Your task to perform on an android device: Open Chrome and go to the settings page Image 0: 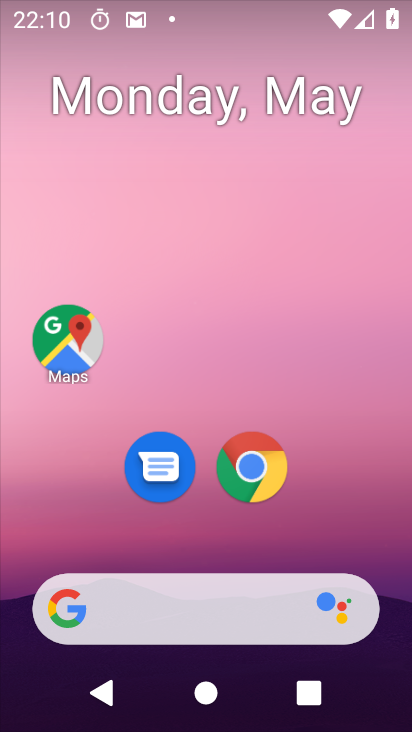
Step 0: press home button
Your task to perform on an android device: Open Chrome and go to the settings page Image 1: 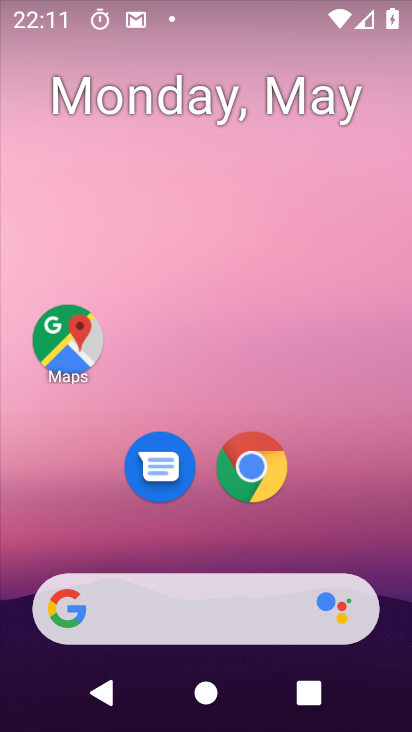
Step 1: drag from (277, 639) to (243, 365)
Your task to perform on an android device: Open Chrome and go to the settings page Image 2: 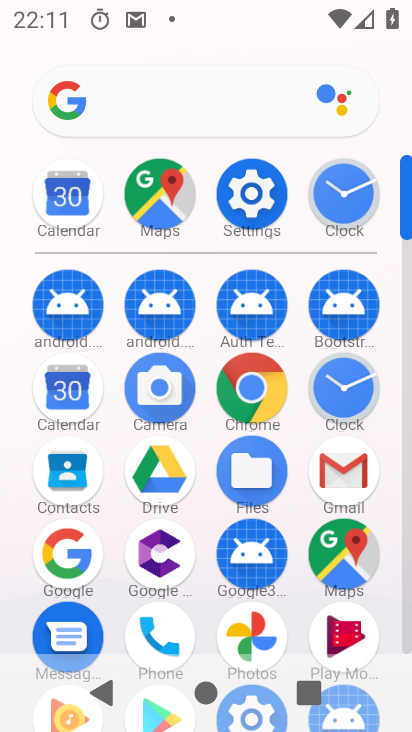
Step 2: click (239, 375)
Your task to perform on an android device: Open Chrome and go to the settings page Image 3: 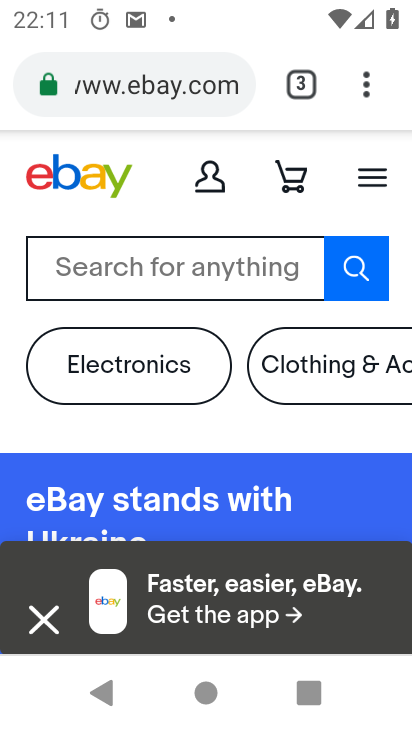
Step 3: click (368, 99)
Your task to perform on an android device: Open Chrome and go to the settings page Image 4: 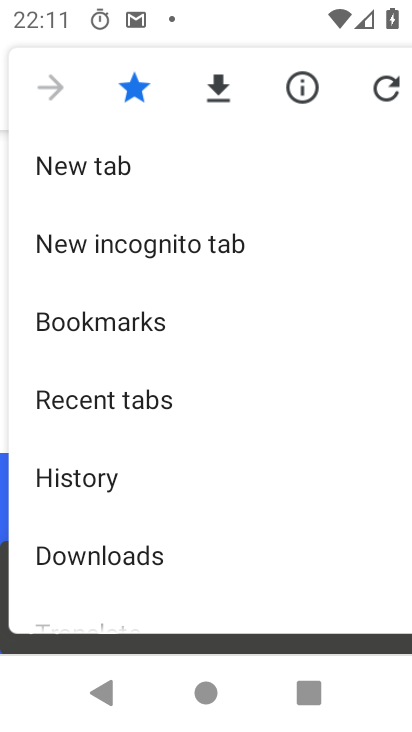
Step 4: drag from (161, 515) to (212, 283)
Your task to perform on an android device: Open Chrome and go to the settings page Image 5: 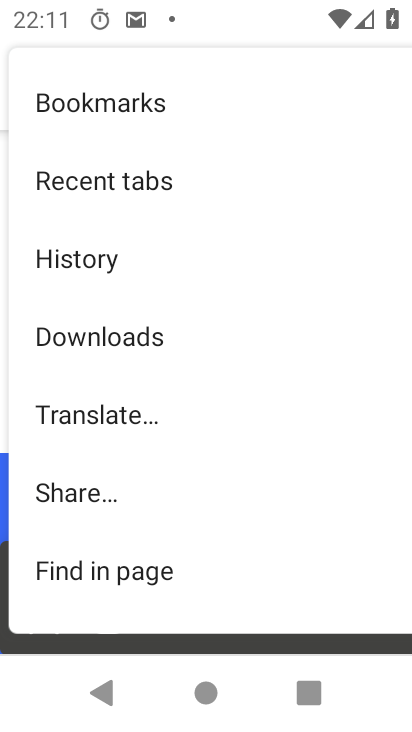
Step 5: drag from (153, 550) to (202, 331)
Your task to perform on an android device: Open Chrome and go to the settings page Image 6: 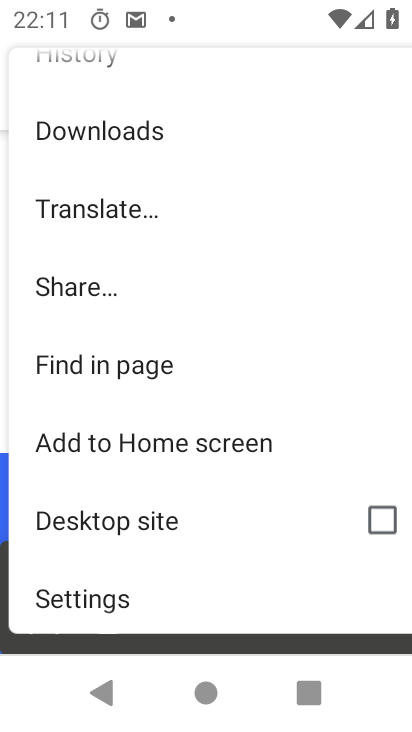
Step 6: click (102, 598)
Your task to perform on an android device: Open Chrome and go to the settings page Image 7: 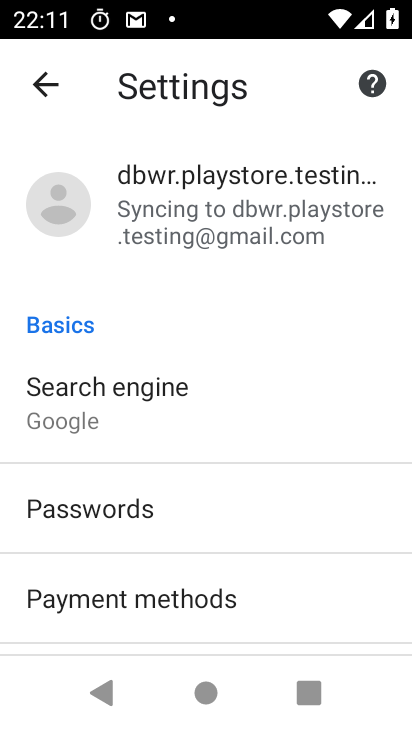
Step 7: task complete